Your task to perform on an android device: What's the news about the US economy? Image 0: 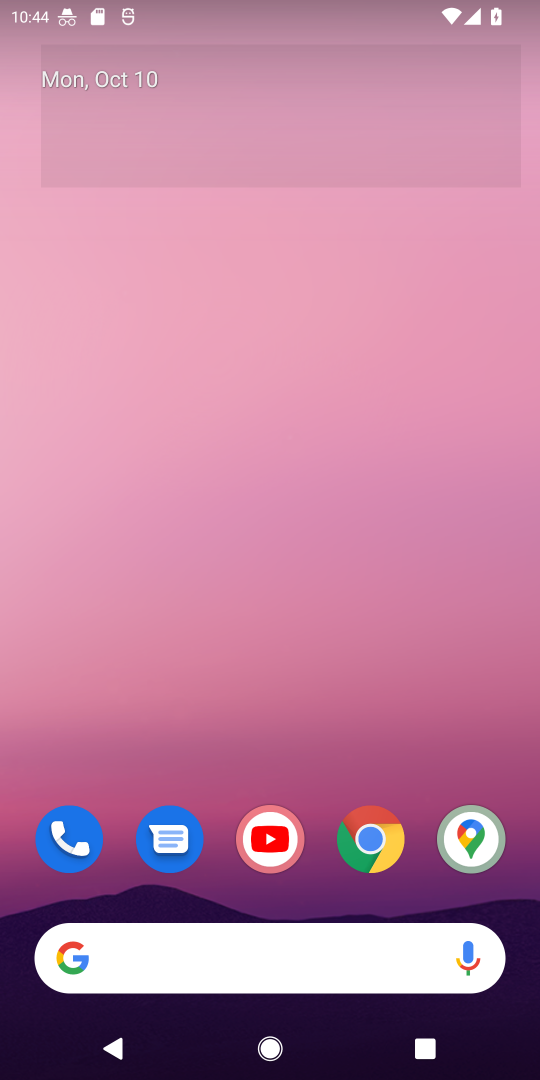
Step 0: drag from (311, 841) to (288, 52)
Your task to perform on an android device: What's the news about the US economy? Image 1: 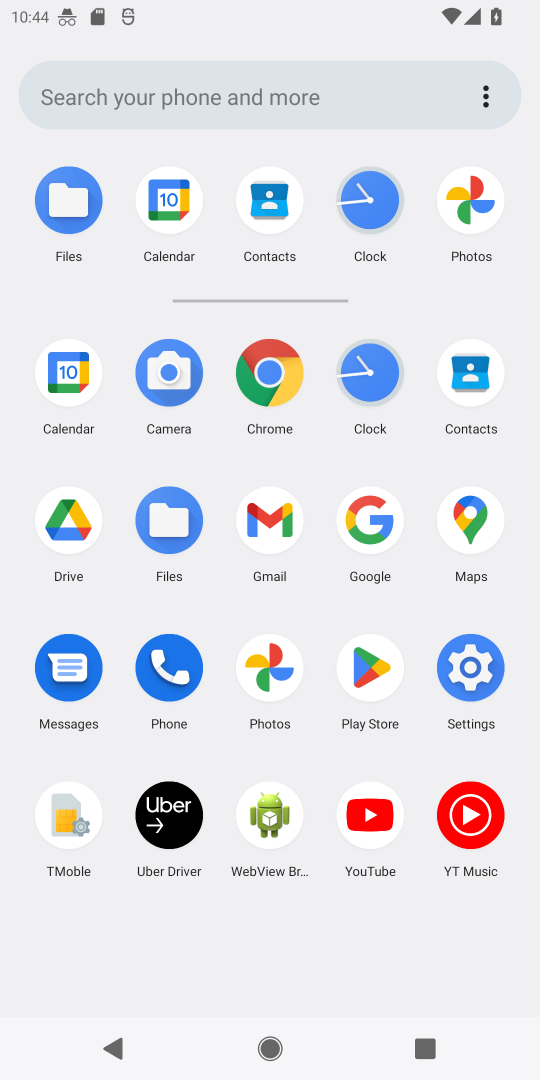
Step 1: click (267, 386)
Your task to perform on an android device: What's the news about the US economy? Image 2: 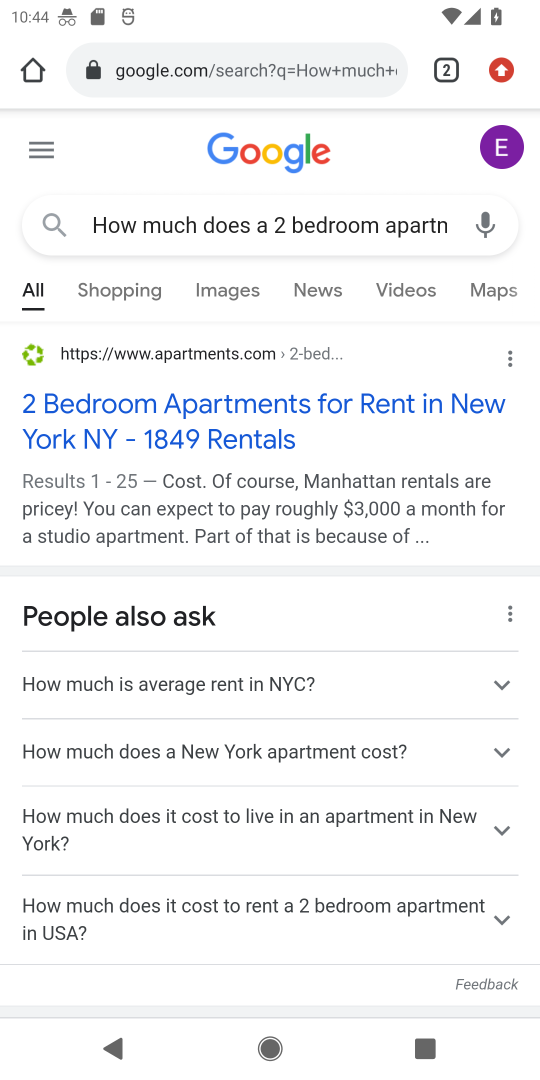
Step 2: click (228, 63)
Your task to perform on an android device: What's the news about the US economy? Image 3: 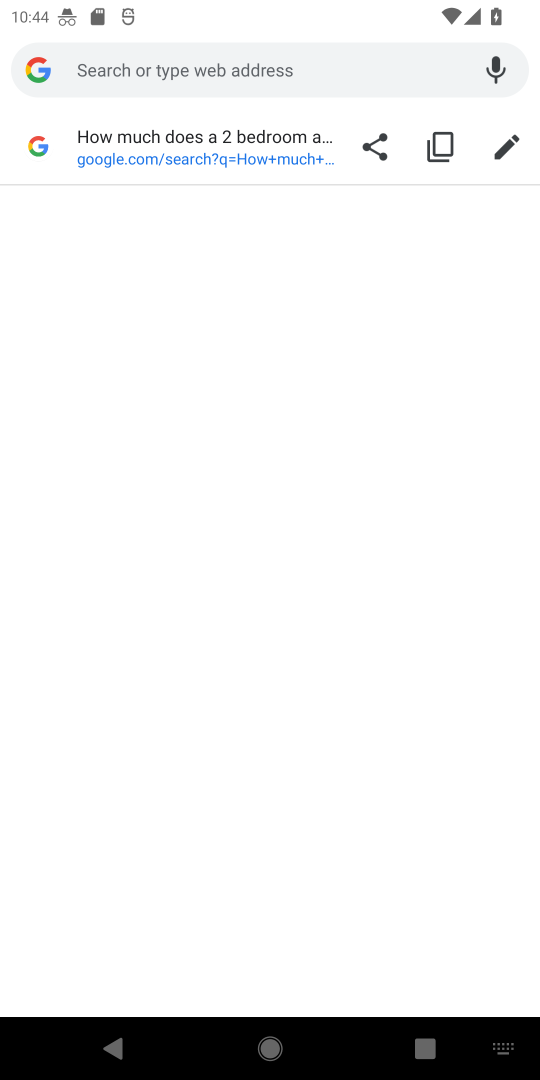
Step 3: type "What's the news about the US ecomomy?"
Your task to perform on an android device: What's the news about the US economy? Image 4: 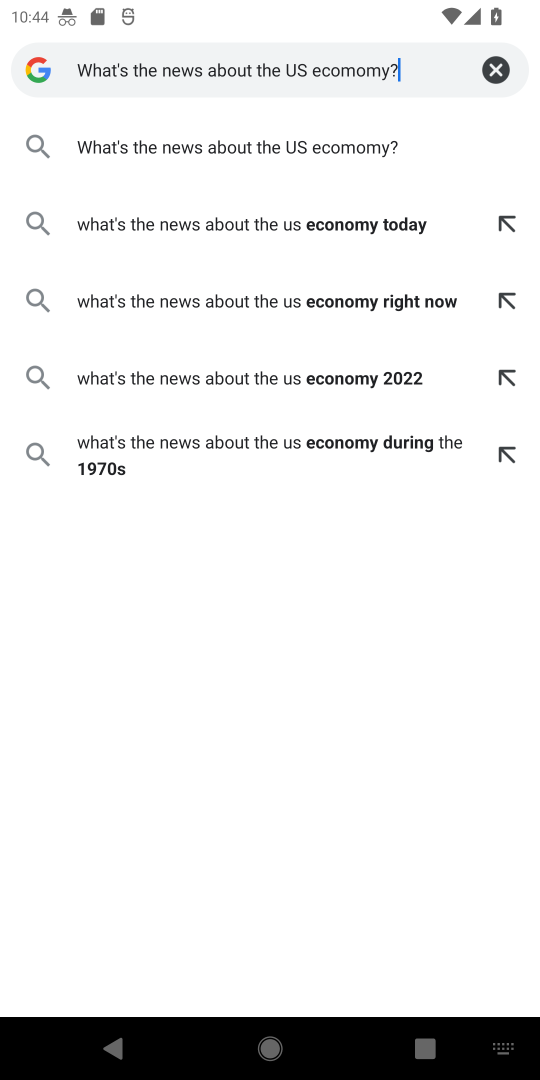
Step 4: press enter
Your task to perform on an android device: What's the news about the US economy? Image 5: 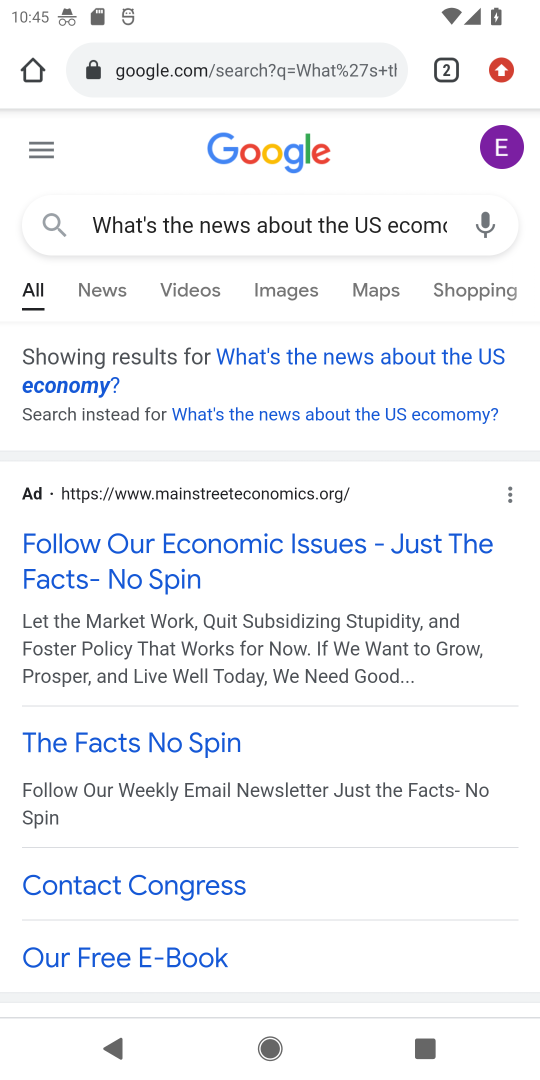
Step 5: drag from (425, 864) to (380, 133)
Your task to perform on an android device: What's the news about the US economy? Image 6: 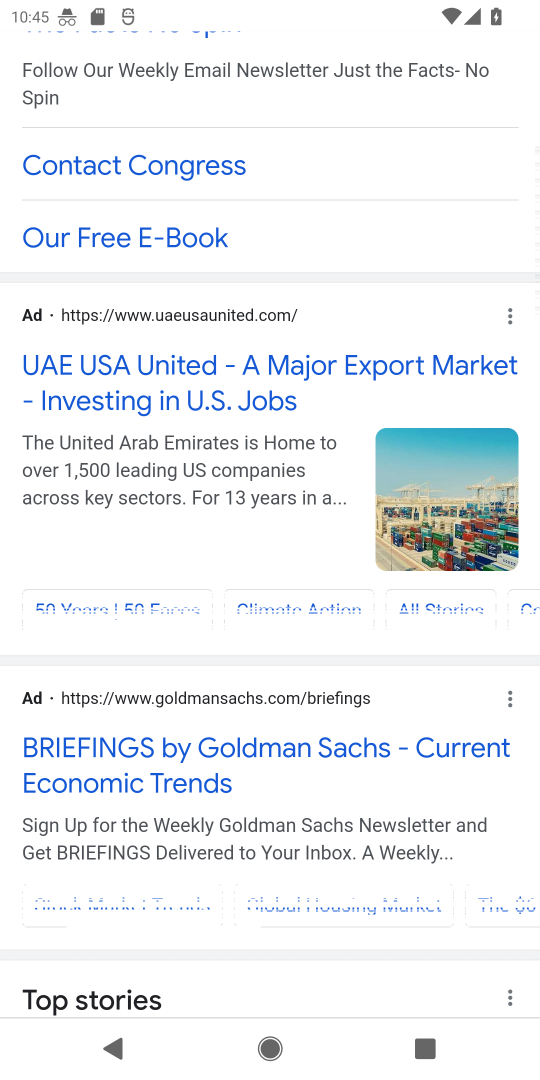
Step 6: drag from (322, 838) to (308, 13)
Your task to perform on an android device: What's the news about the US economy? Image 7: 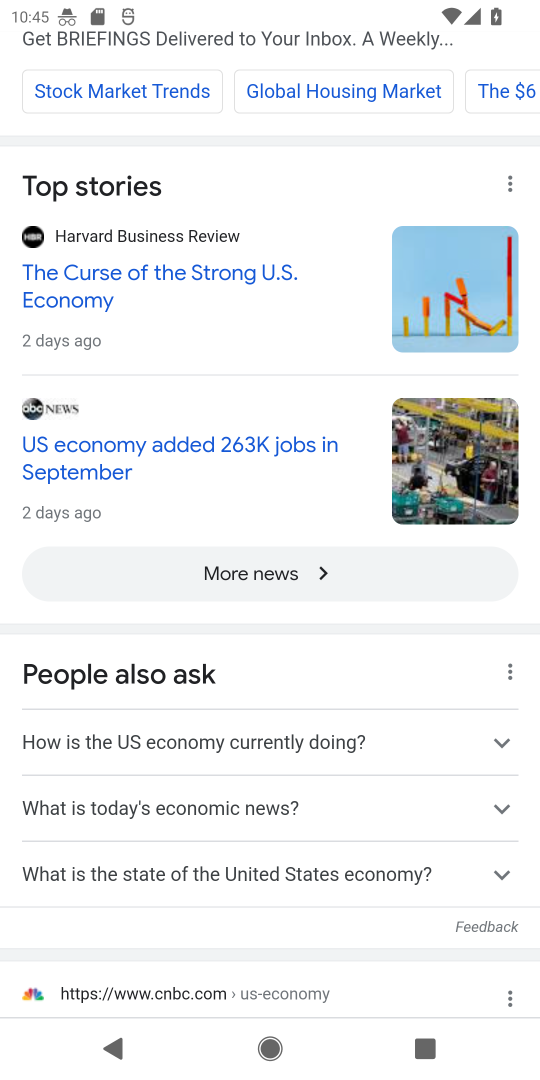
Step 7: drag from (293, 830) to (271, 912)
Your task to perform on an android device: What's the news about the US economy? Image 8: 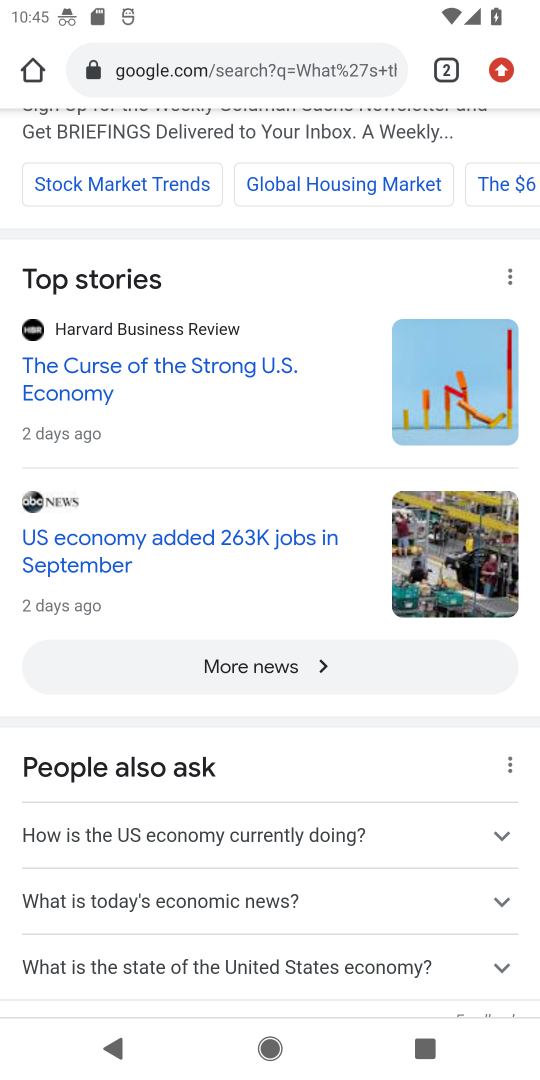
Step 8: click (183, 373)
Your task to perform on an android device: What's the news about the US economy? Image 9: 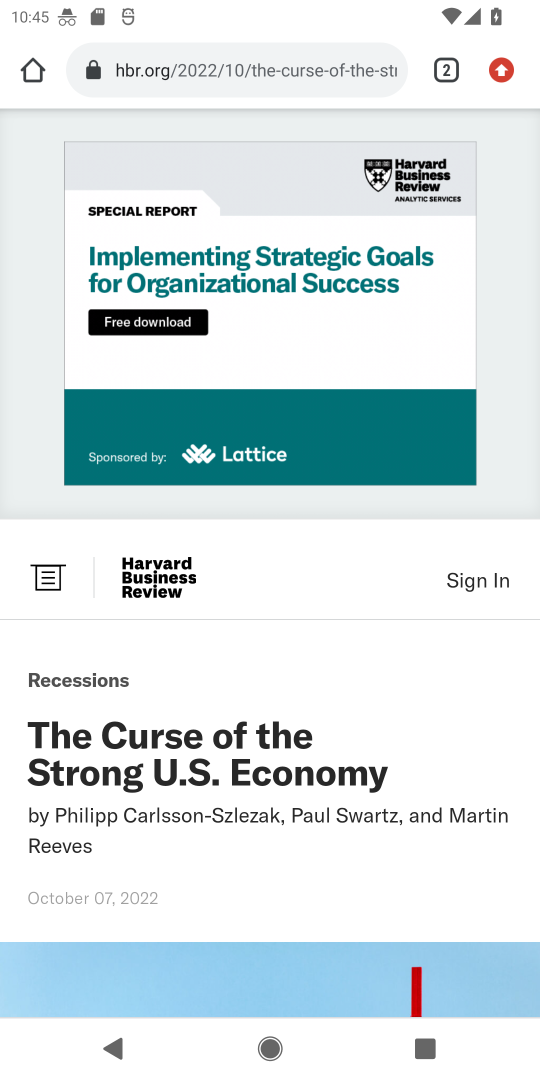
Step 9: task complete